Your task to perform on an android device: turn on data saver in the chrome app Image 0: 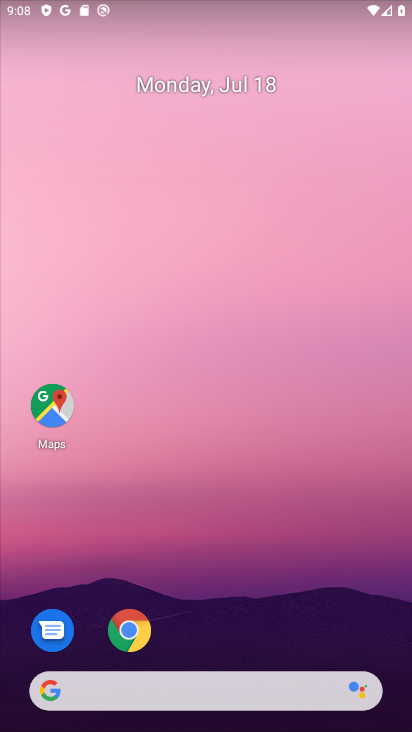
Step 0: drag from (388, 646) to (303, 57)
Your task to perform on an android device: turn on data saver in the chrome app Image 1: 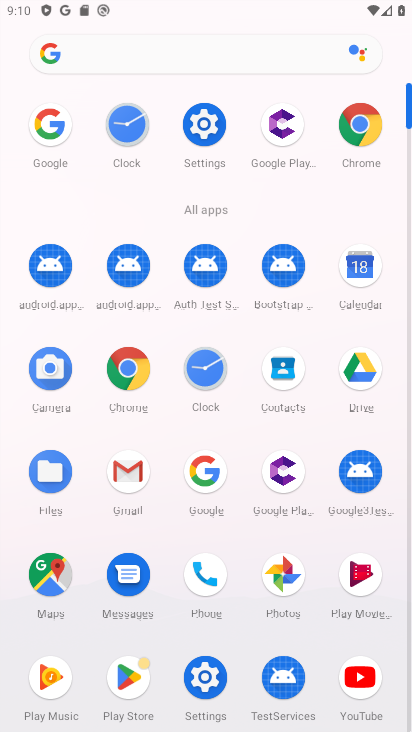
Step 1: click (125, 374)
Your task to perform on an android device: turn on data saver in the chrome app Image 2: 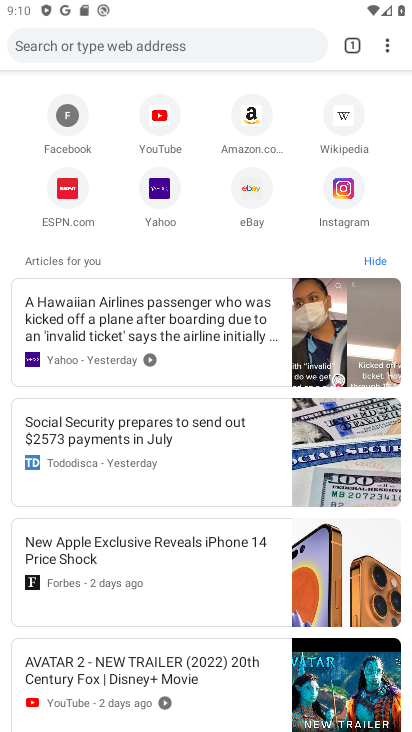
Step 2: click (390, 41)
Your task to perform on an android device: turn on data saver in the chrome app Image 3: 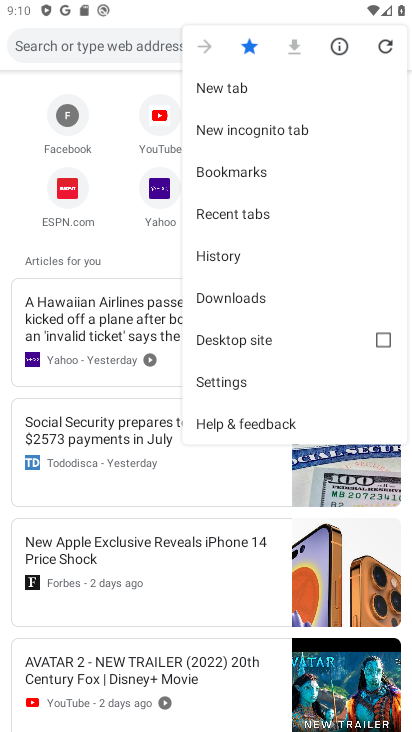
Step 3: click (216, 380)
Your task to perform on an android device: turn on data saver in the chrome app Image 4: 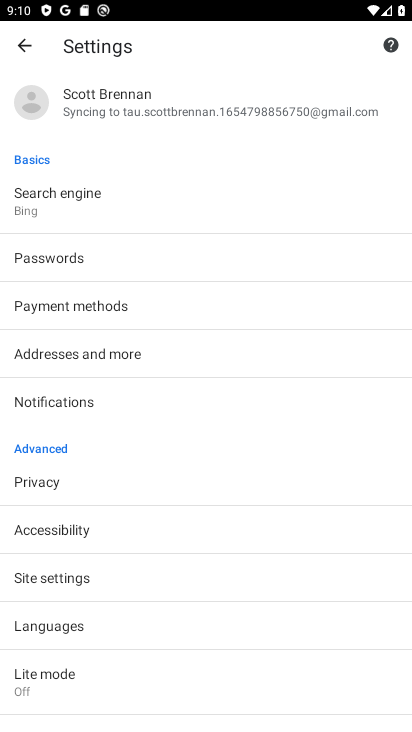
Step 4: click (92, 675)
Your task to perform on an android device: turn on data saver in the chrome app Image 5: 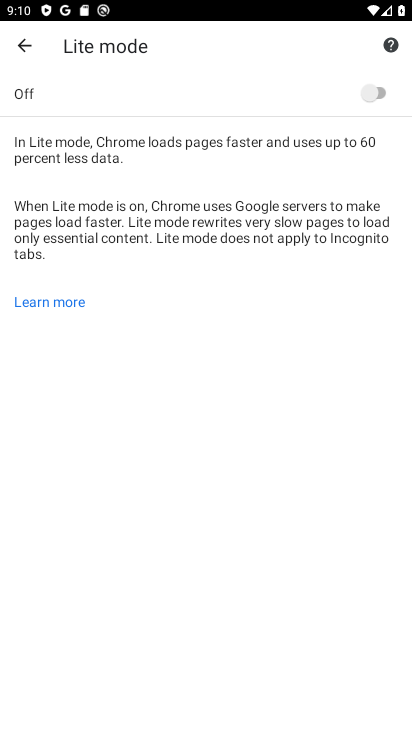
Step 5: click (365, 91)
Your task to perform on an android device: turn on data saver in the chrome app Image 6: 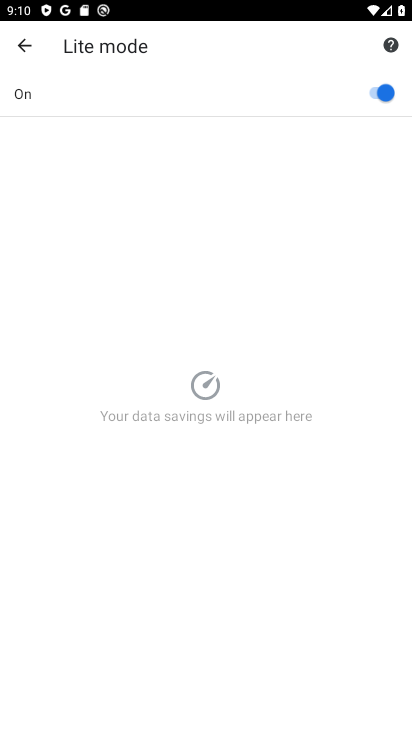
Step 6: task complete